Your task to perform on an android device: refresh tabs in the chrome app Image 0: 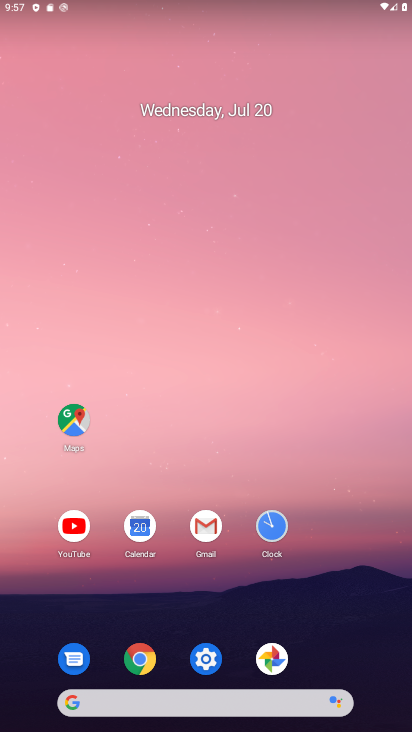
Step 0: click (139, 656)
Your task to perform on an android device: refresh tabs in the chrome app Image 1: 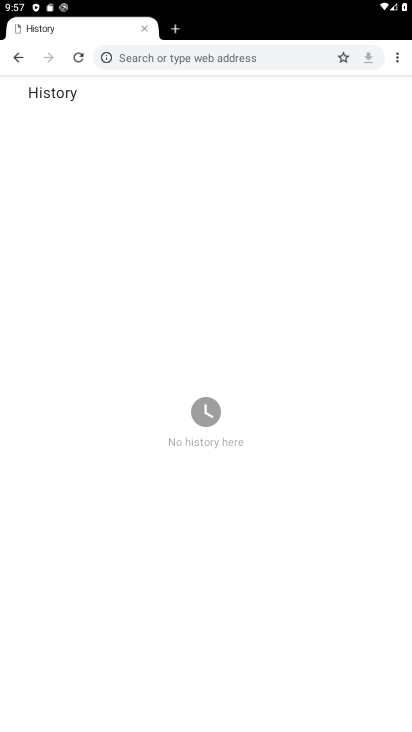
Step 1: click (80, 57)
Your task to perform on an android device: refresh tabs in the chrome app Image 2: 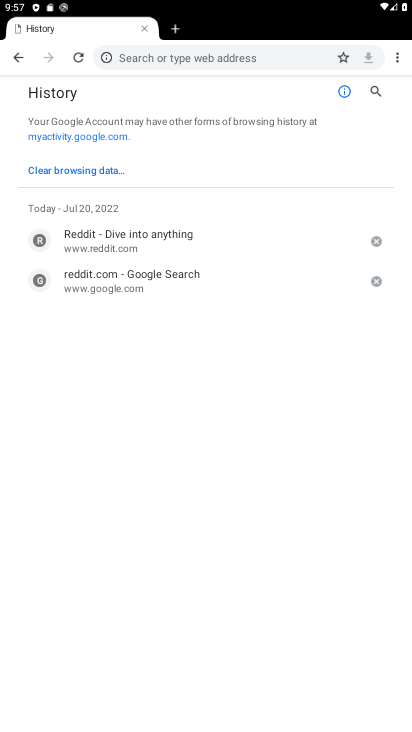
Step 2: task complete